Your task to perform on an android device: change alarm snooze length Image 0: 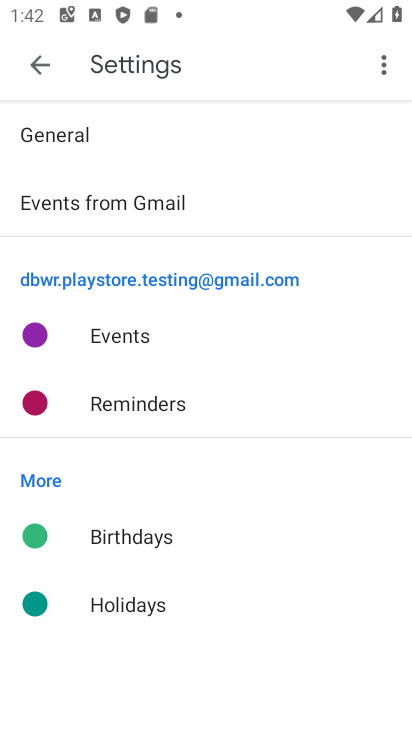
Step 0: press home button
Your task to perform on an android device: change alarm snooze length Image 1: 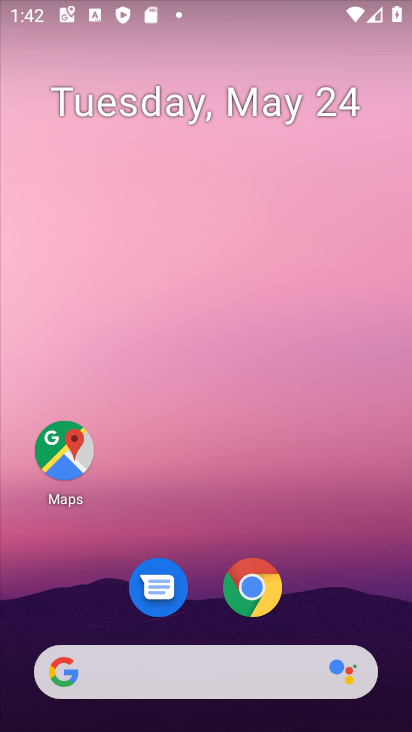
Step 1: drag from (242, 716) to (218, 159)
Your task to perform on an android device: change alarm snooze length Image 2: 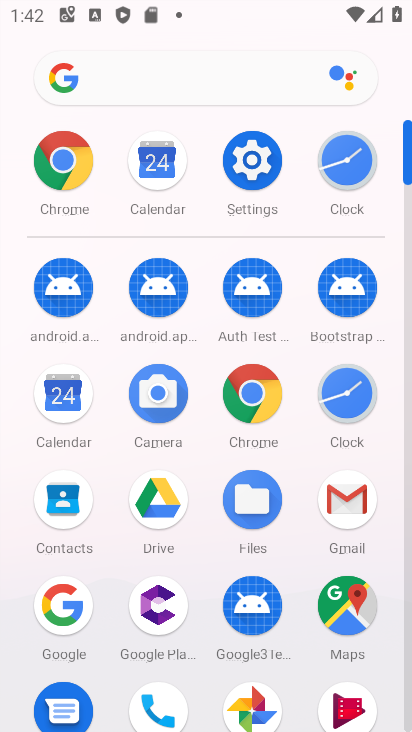
Step 2: click (350, 162)
Your task to perform on an android device: change alarm snooze length Image 3: 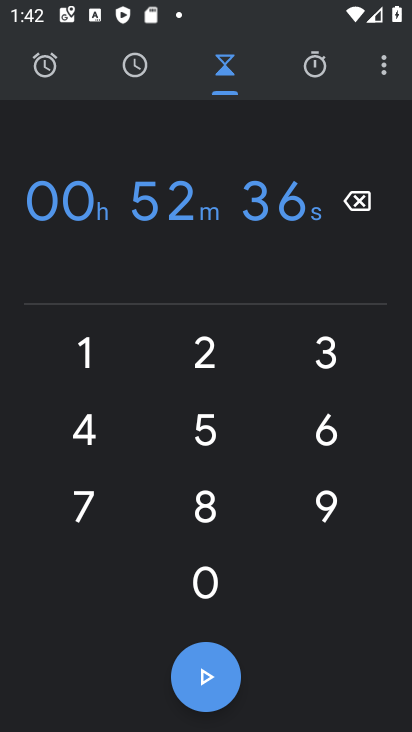
Step 3: click (388, 58)
Your task to perform on an android device: change alarm snooze length Image 4: 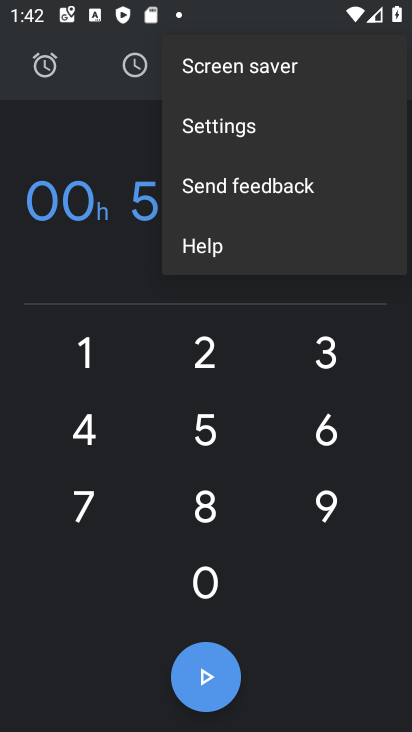
Step 4: click (294, 124)
Your task to perform on an android device: change alarm snooze length Image 5: 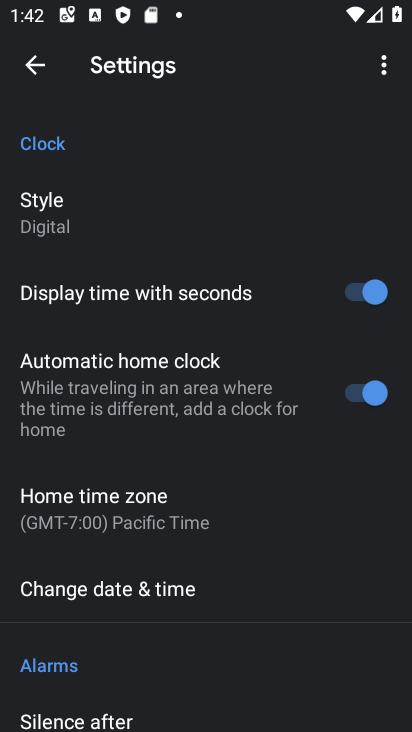
Step 5: drag from (254, 664) to (157, 178)
Your task to perform on an android device: change alarm snooze length Image 6: 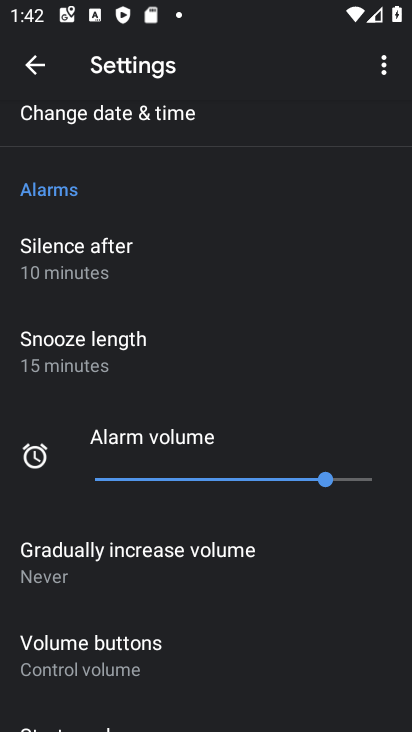
Step 6: click (78, 360)
Your task to perform on an android device: change alarm snooze length Image 7: 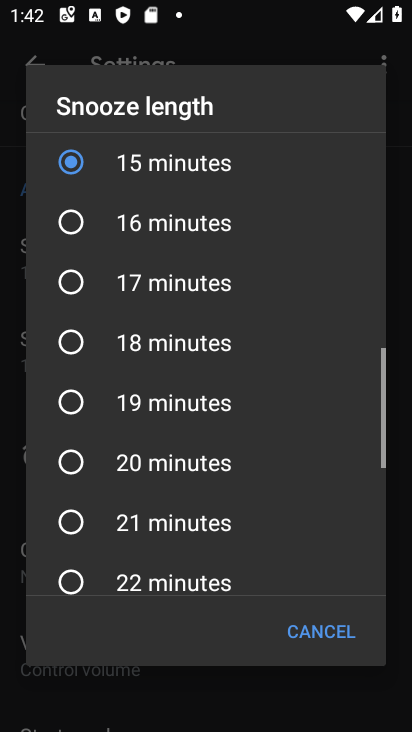
Step 7: click (149, 401)
Your task to perform on an android device: change alarm snooze length Image 8: 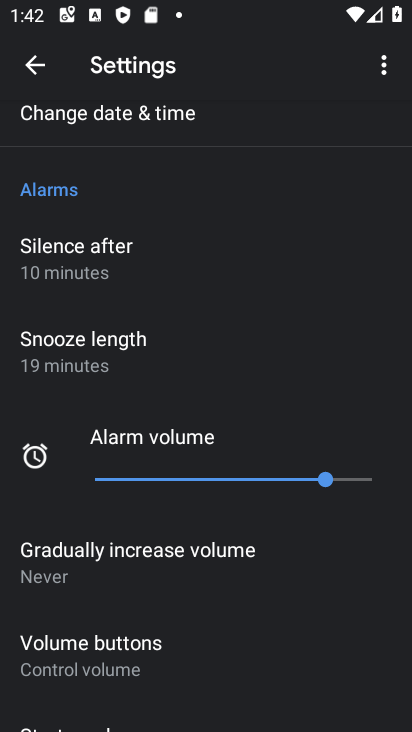
Step 8: task complete